Your task to perform on an android device: turn on translation in the chrome app Image 0: 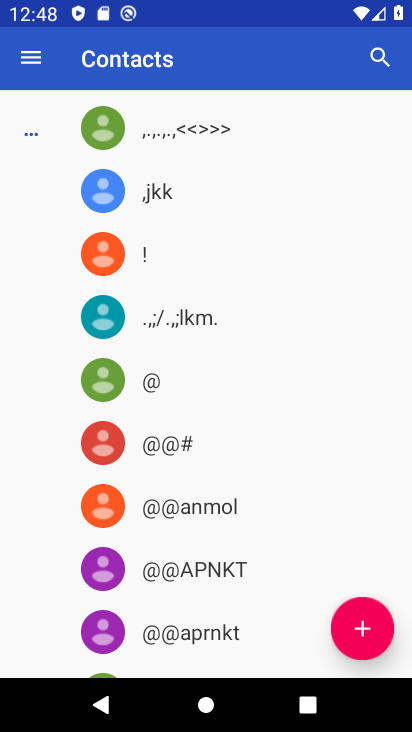
Step 0: press home button
Your task to perform on an android device: turn on translation in the chrome app Image 1: 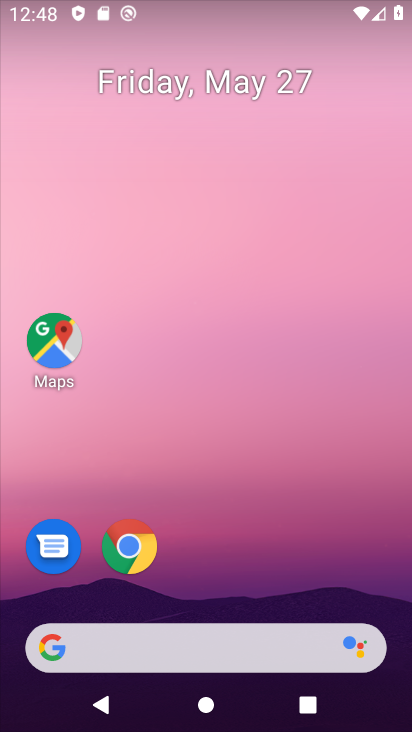
Step 1: drag from (243, 648) to (320, 83)
Your task to perform on an android device: turn on translation in the chrome app Image 2: 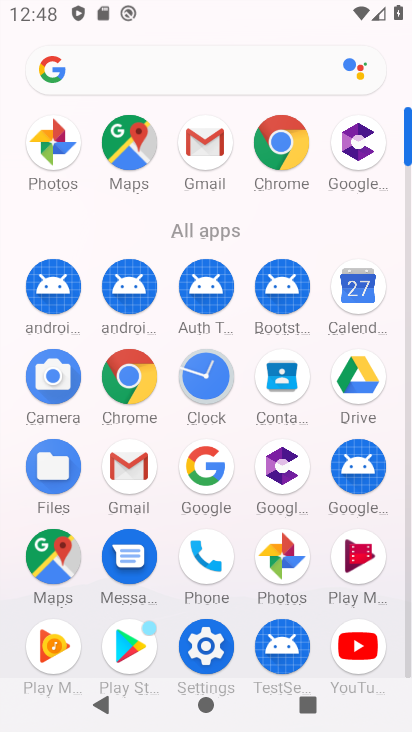
Step 2: click (278, 151)
Your task to perform on an android device: turn on translation in the chrome app Image 3: 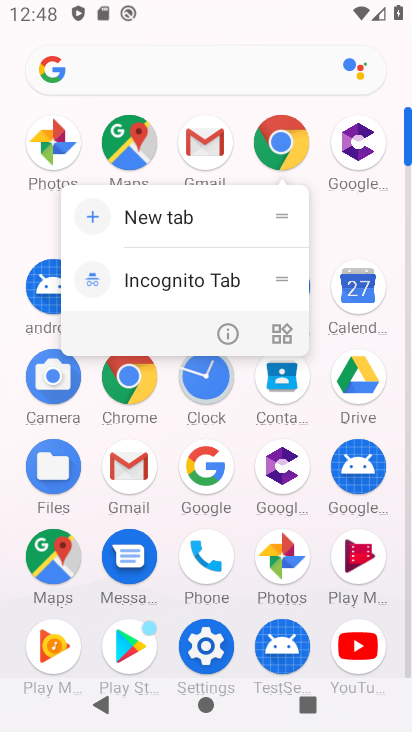
Step 3: click (283, 135)
Your task to perform on an android device: turn on translation in the chrome app Image 4: 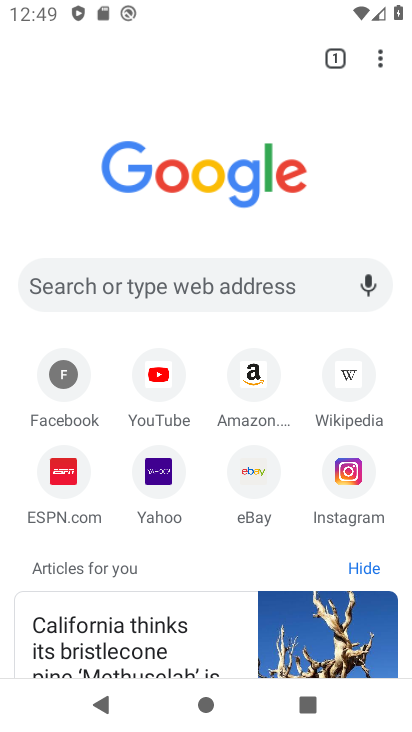
Step 4: click (377, 55)
Your task to perform on an android device: turn on translation in the chrome app Image 5: 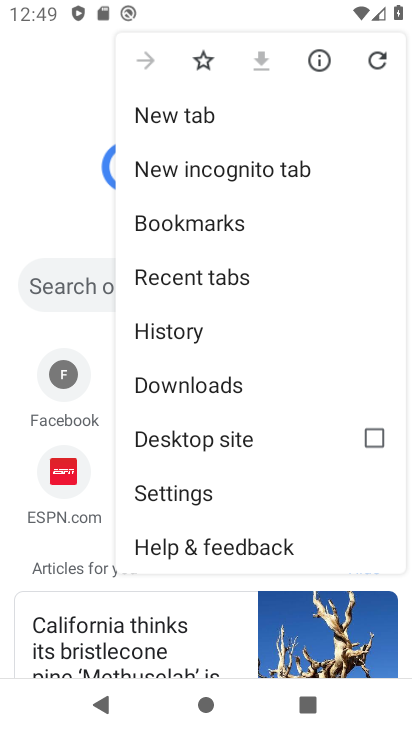
Step 5: click (176, 488)
Your task to perform on an android device: turn on translation in the chrome app Image 6: 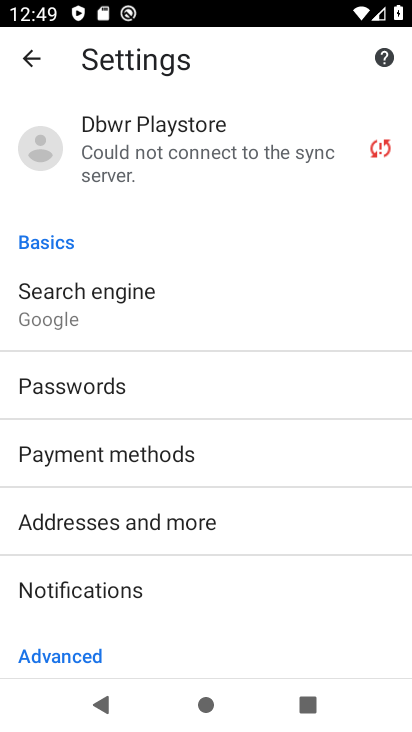
Step 6: drag from (135, 589) to (344, 180)
Your task to perform on an android device: turn on translation in the chrome app Image 7: 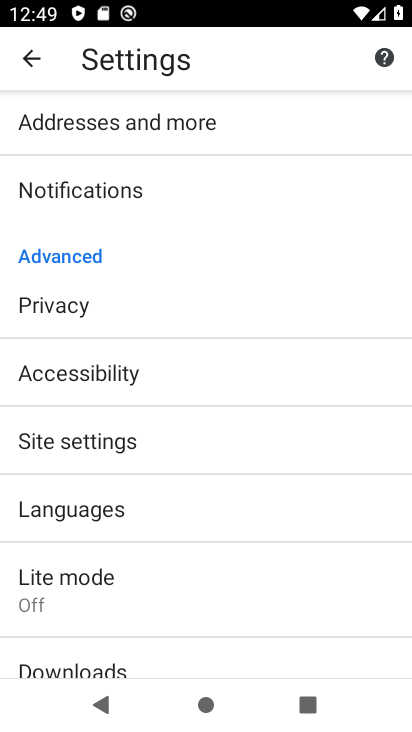
Step 7: drag from (142, 557) to (307, 228)
Your task to perform on an android device: turn on translation in the chrome app Image 8: 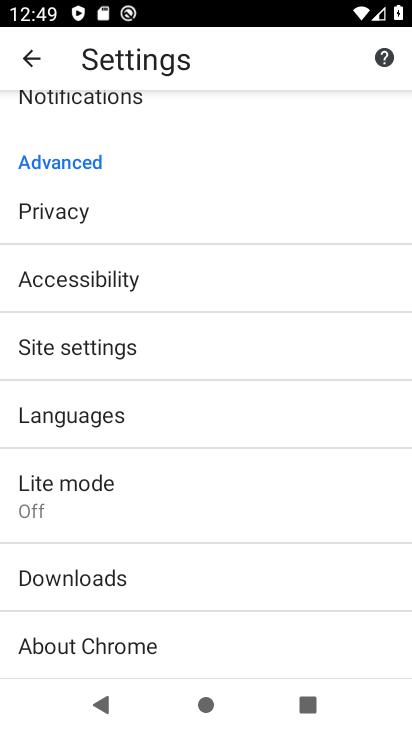
Step 8: click (135, 426)
Your task to perform on an android device: turn on translation in the chrome app Image 9: 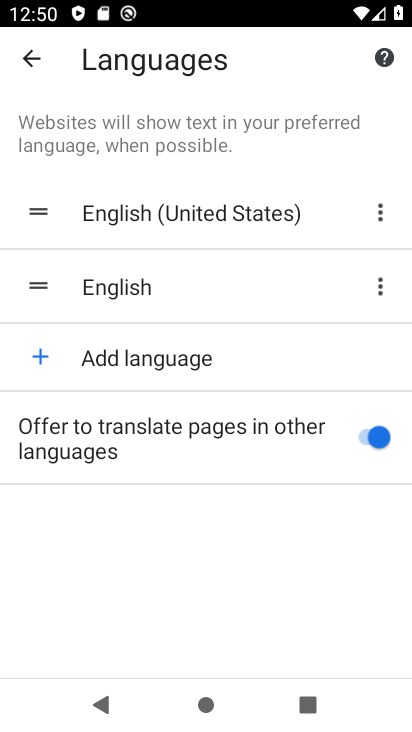
Step 9: task complete